Your task to perform on an android device: delete a single message in the gmail app Image 0: 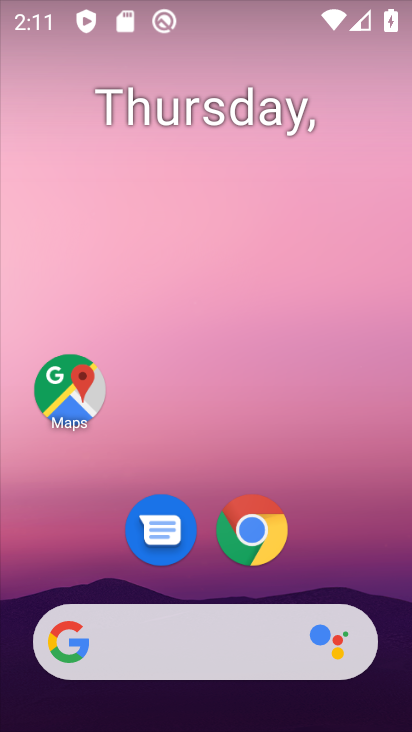
Step 0: drag from (208, 718) to (219, 56)
Your task to perform on an android device: delete a single message in the gmail app Image 1: 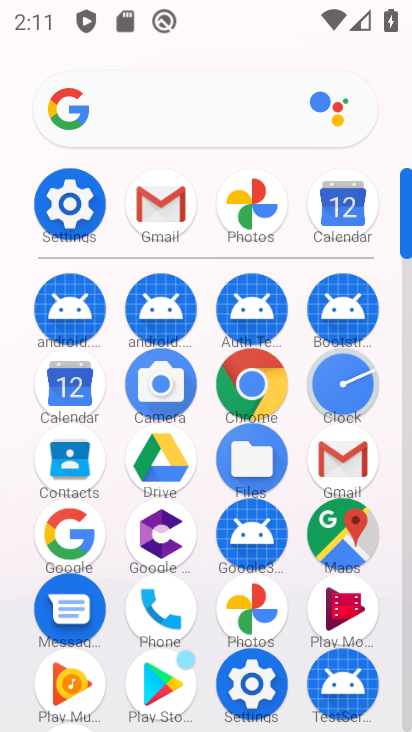
Step 1: click (339, 461)
Your task to perform on an android device: delete a single message in the gmail app Image 2: 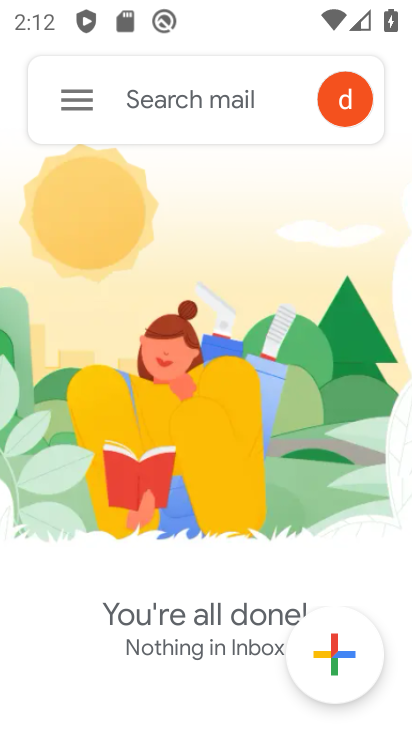
Step 2: task complete